Your task to perform on an android device: clear all cookies in the chrome app Image 0: 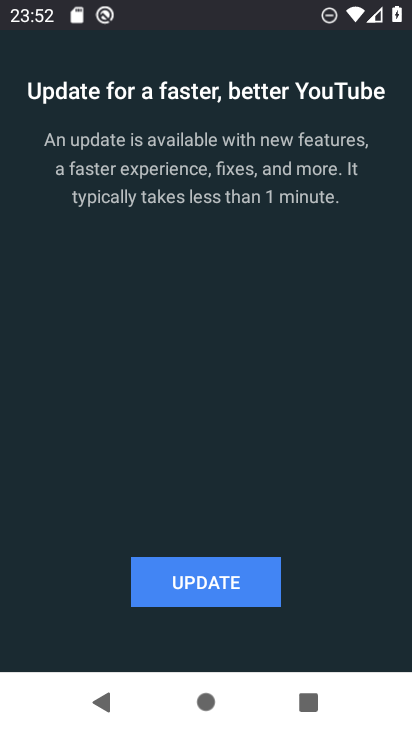
Step 0: press home button
Your task to perform on an android device: clear all cookies in the chrome app Image 1: 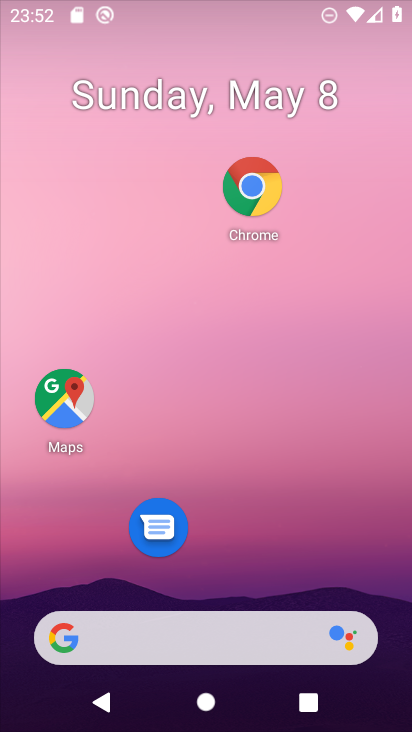
Step 1: drag from (308, 464) to (359, 247)
Your task to perform on an android device: clear all cookies in the chrome app Image 2: 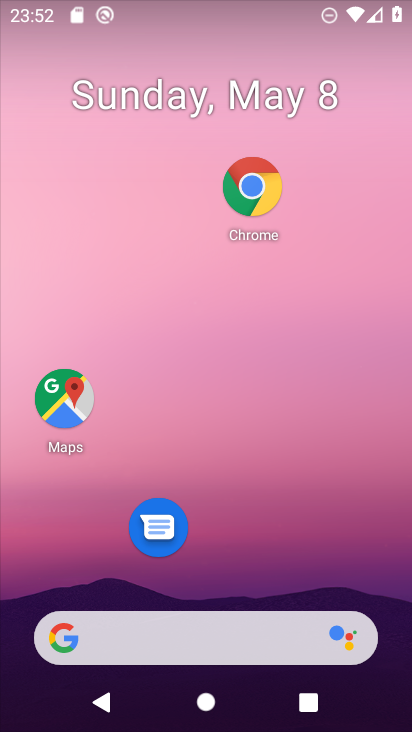
Step 2: drag from (259, 473) to (333, 169)
Your task to perform on an android device: clear all cookies in the chrome app Image 3: 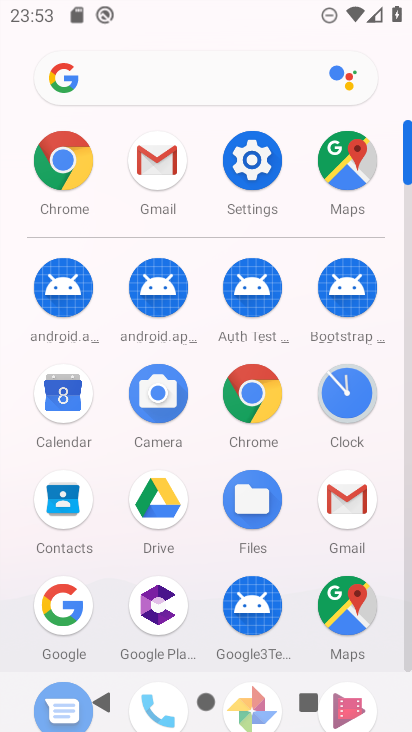
Step 3: click (258, 405)
Your task to perform on an android device: clear all cookies in the chrome app Image 4: 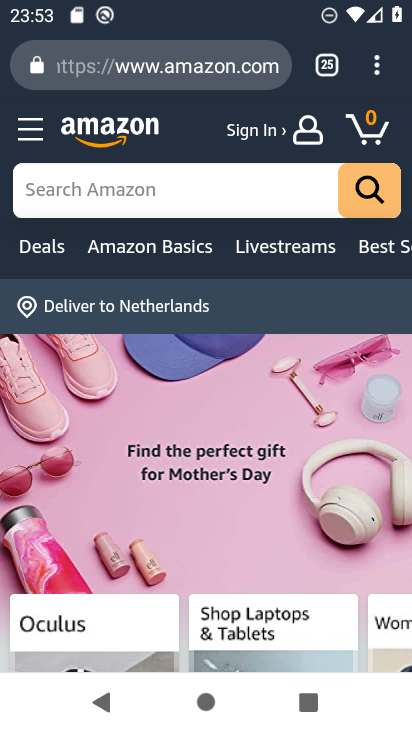
Step 4: click (360, 54)
Your task to perform on an android device: clear all cookies in the chrome app Image 5: 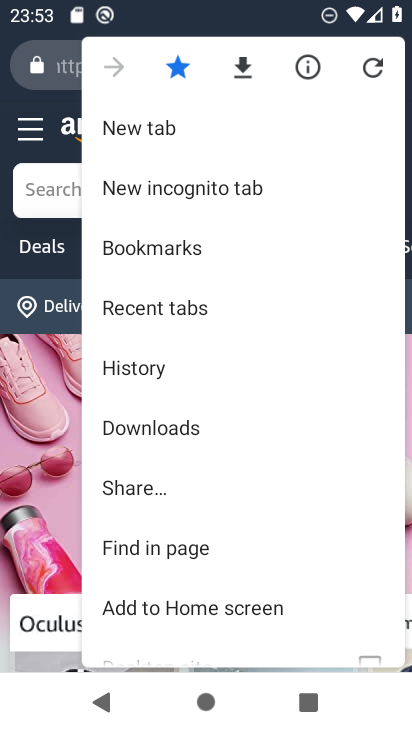
Step 5: drag from (195, 500) to (272, 199)
Your task to perform on an android device: clear all cookies in the chrome app Image 6: 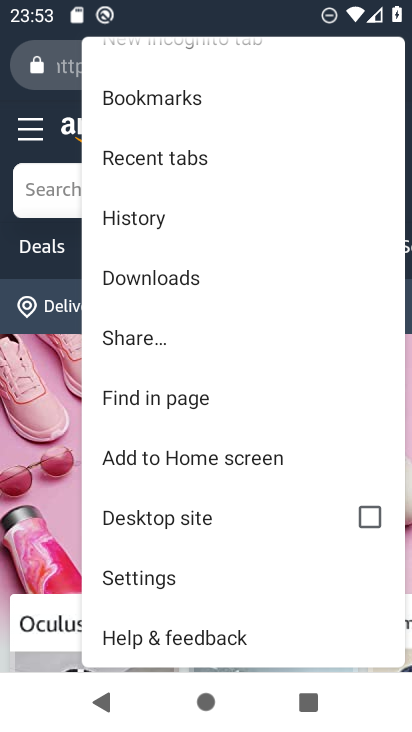
Step 6: click (140, 565)
Your task to perform on an android device: clear all cookies in the chrome app Image 7: 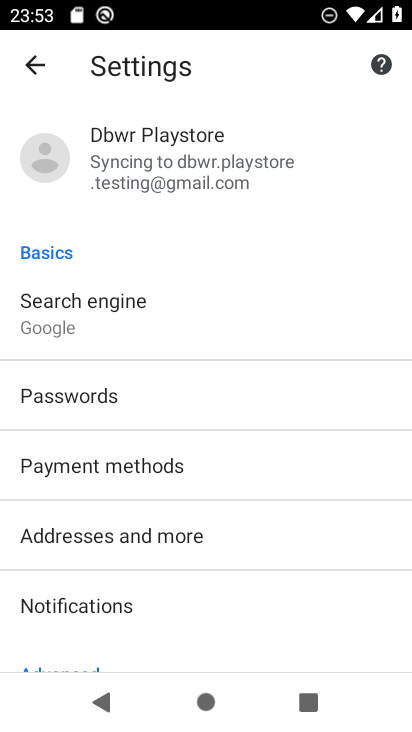
Step 7: drag from (236, 628) to (262, 294)
Your task to perform on an android device: clear all cookies in the chrome app Image 8: 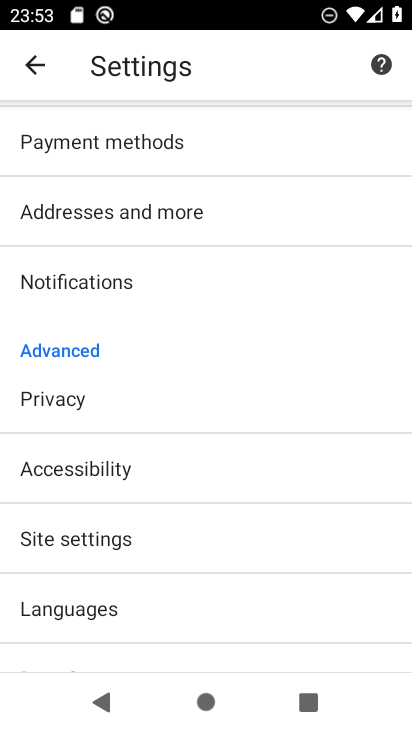
Step 8: click (78, 403)
Your task to perform on an android device: clear all cookies in the chrome app Image 9: 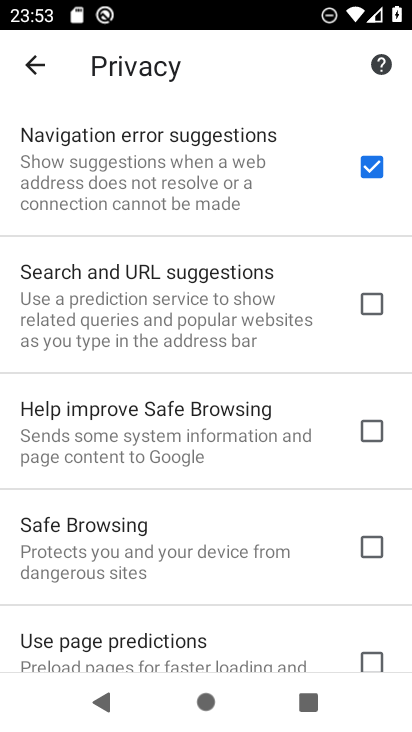
Step 9: drag from (182, 596) to (307, 128)
Your task to perform on an android device: clear all cookies in the chrome app Image 10: 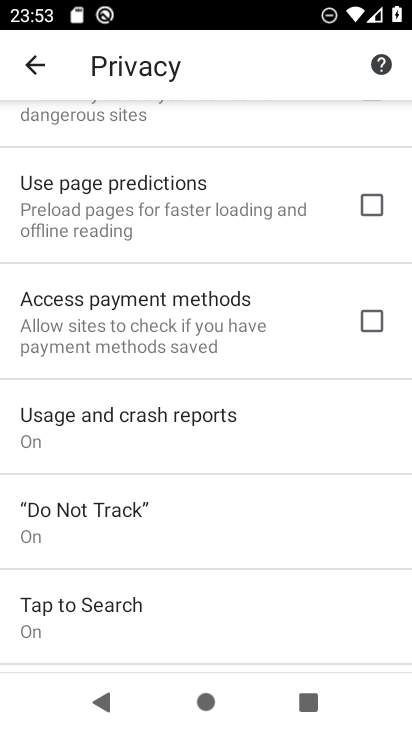
Step 10: drag from (186, 615) to (245, 276)
Your task to perform on an android device: clear all cookies in the chrome app Image 11: 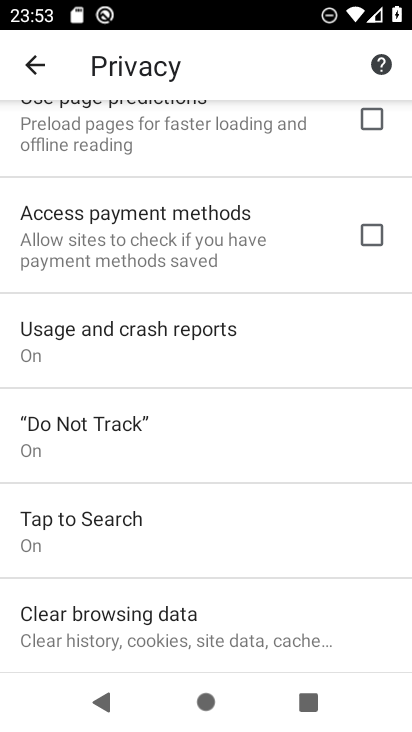
Step 11: click (168, 632)
Your task to perform on an android device: clear all cookies in the chrome app Image 12: 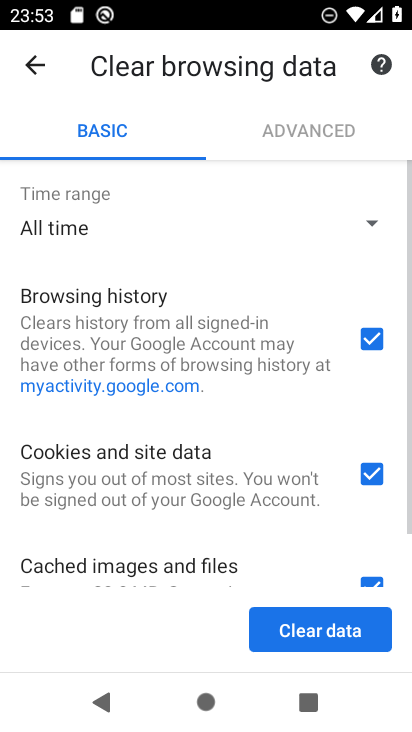
Step 12: click (283, 624)
Your task to perform on an android device: clear all cookies in the chrome app Image 13: 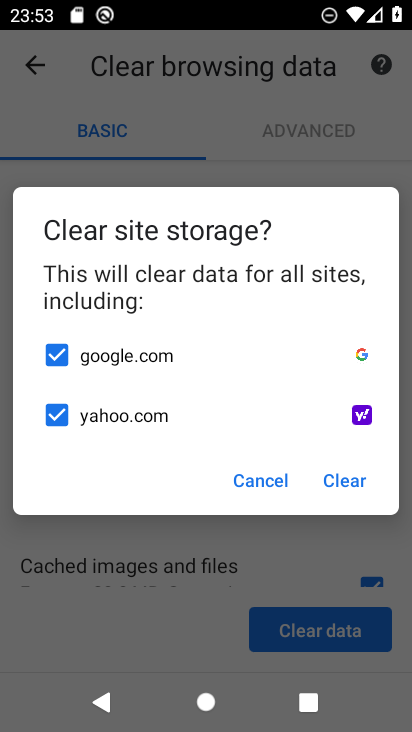
Step 13: click (346, 469)
Your task to perform on an android device: clear all cookies in the chrome app Image 14: 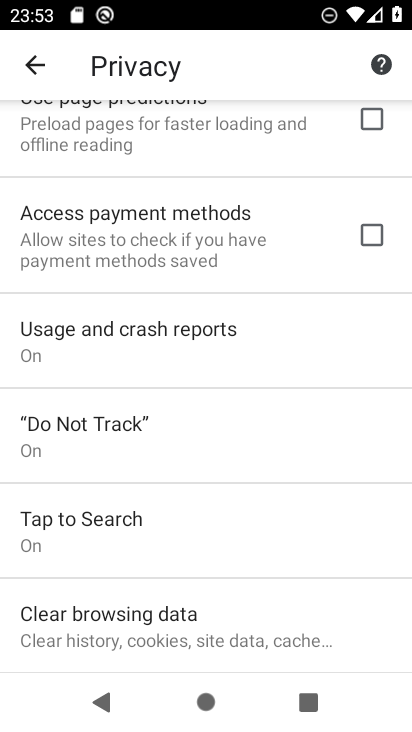
Step 14: task complete